Your task to perform on an android device: open app "Roku - Official Remote Control" Image 0: 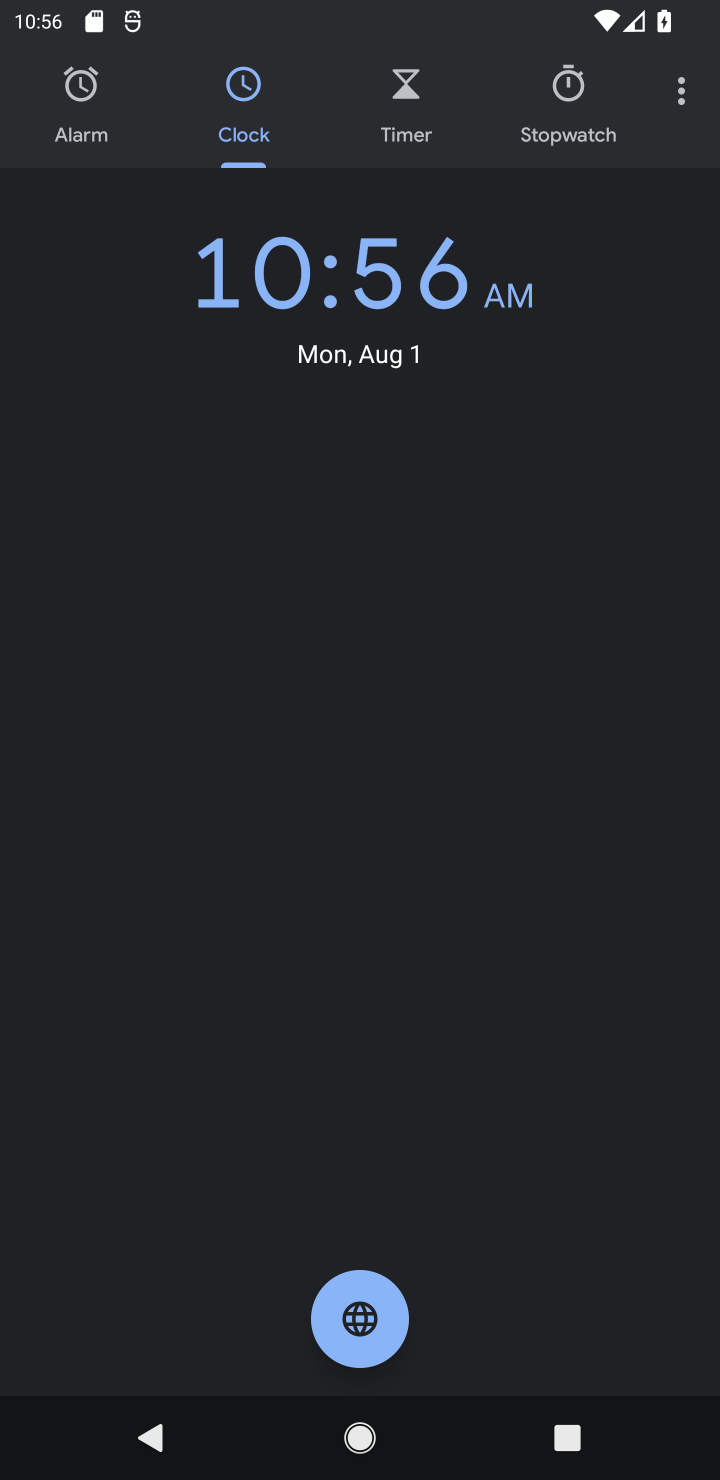
Step 0: press back button
Your task to perform on an android device: open app "Roku - Official Remote Control" Image 1: 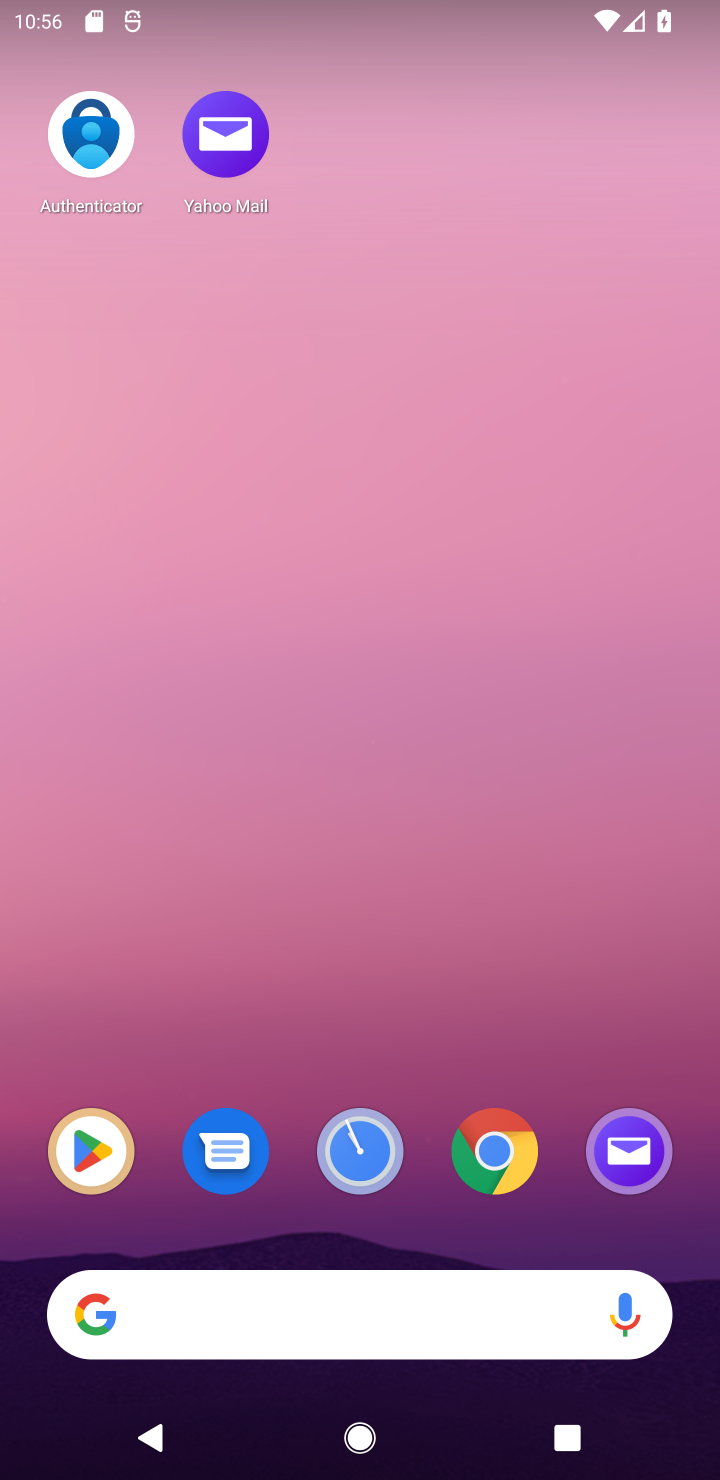
Step 1: drag from (379, 1251) to (384, 155)
Your task to perform on an android device: open app "Roku - Official Remote Control" Image 2: 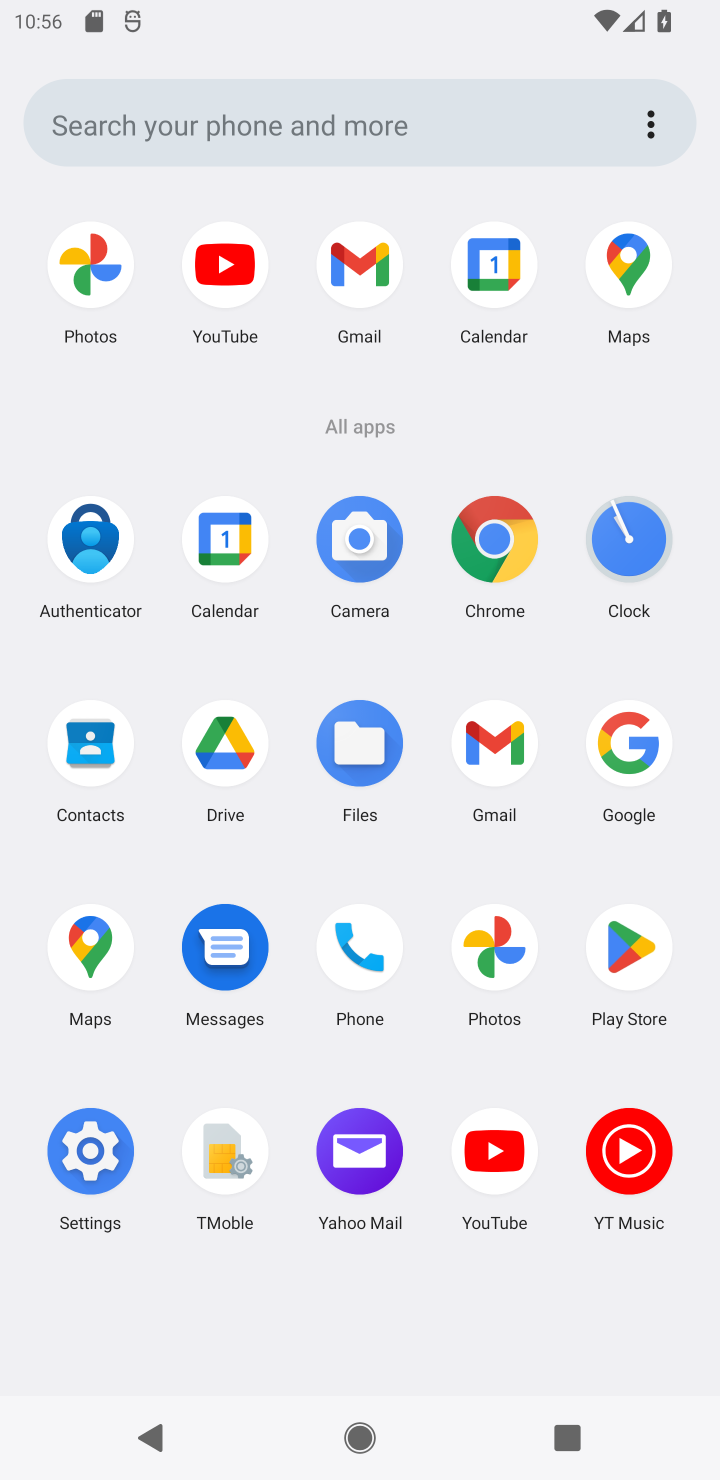
Step 2: click (645, 958)
Your task to perform on an android device: open app "Roku - Official Remote Control" Image 3: 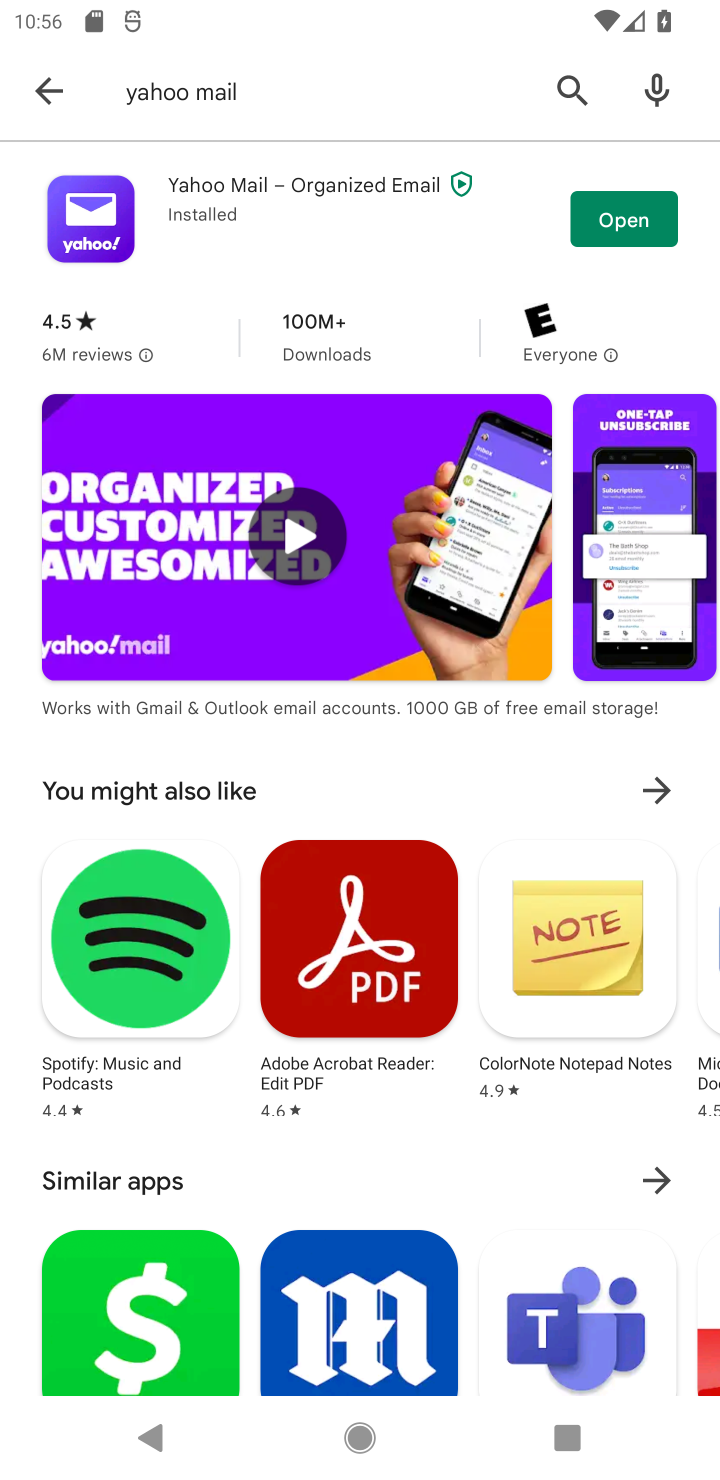
Step 3: click (42, 96)
Your task to perform on an android device: open app "Roku - Official Remote Control" Image 4: 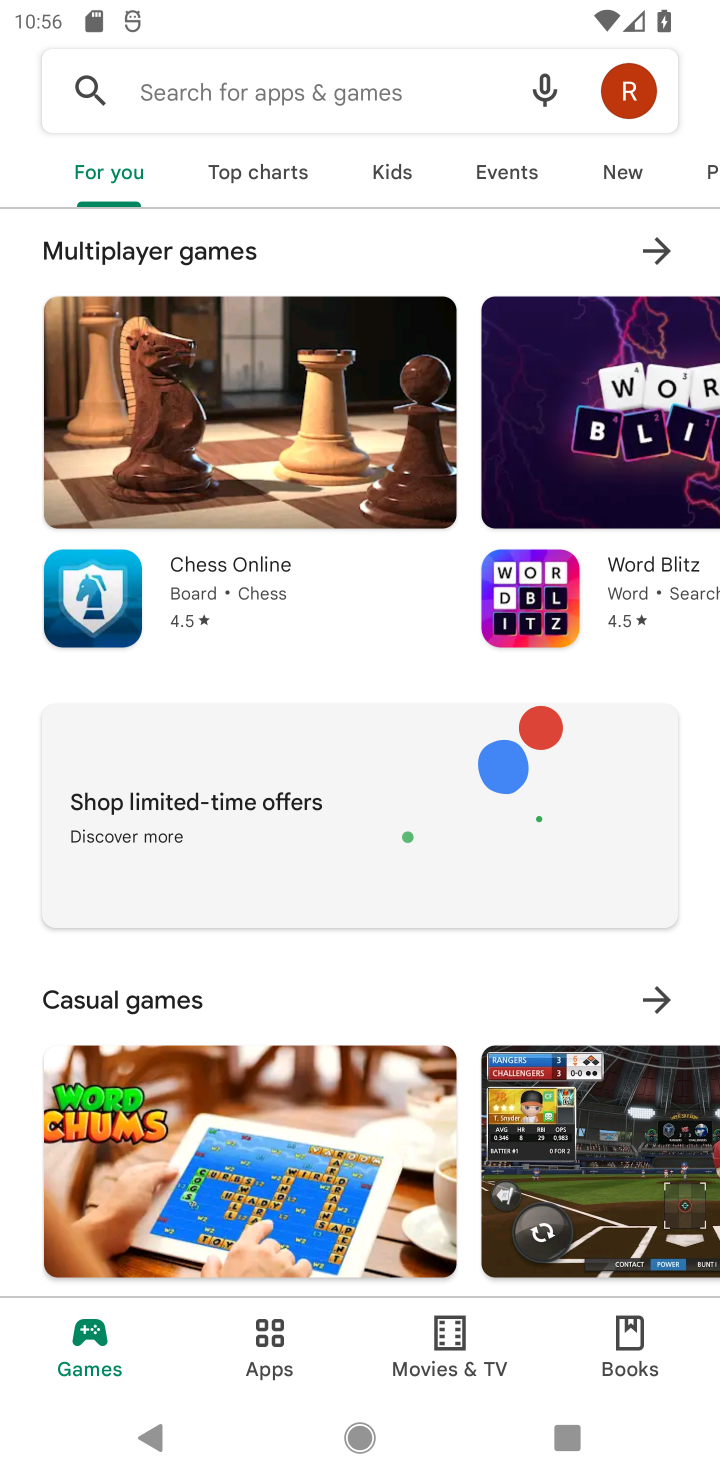
Step 4: click (244, 89)
Your task to perform on an android device: open app "Roku - Official Remote Control" Image 5: 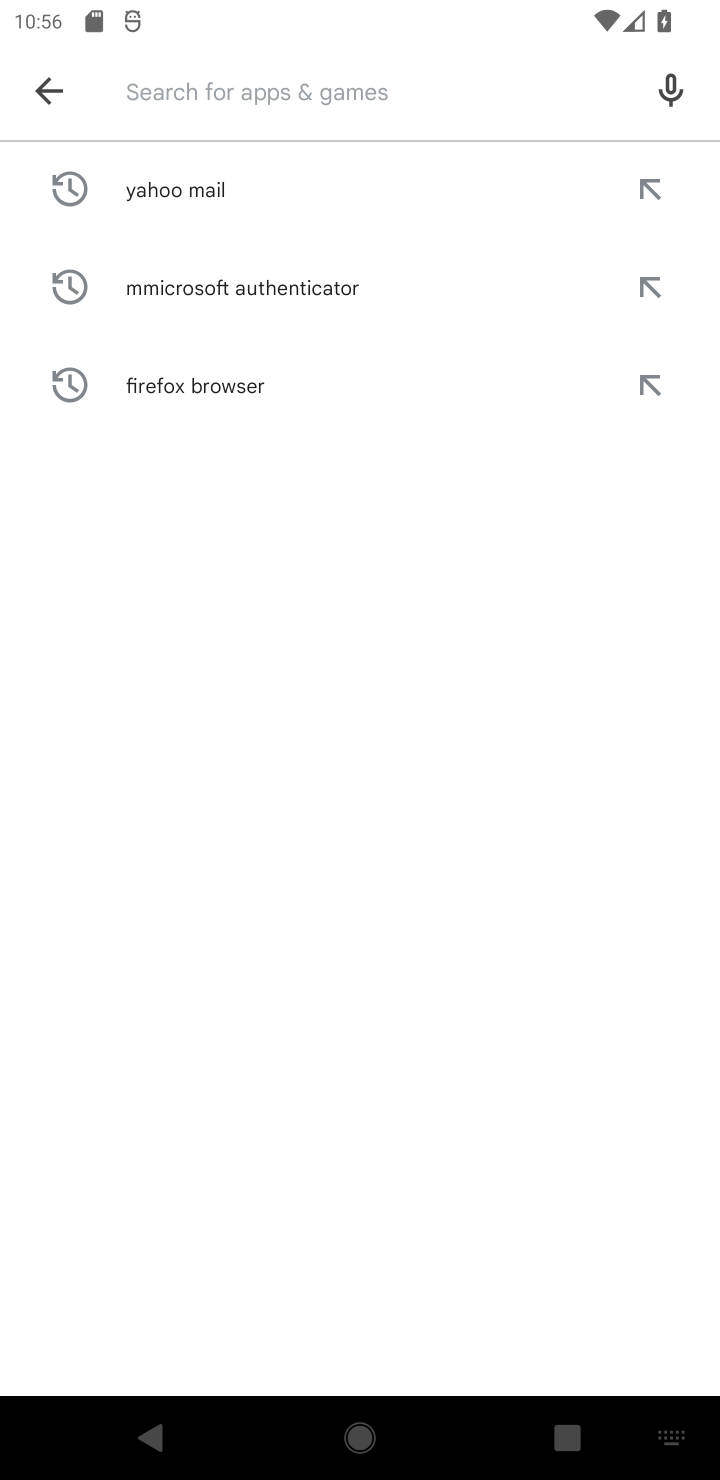
Step 5: type "Roku - Official Remote Control"
Your task to perform on an android device: open app "Roku - Official Remote Control" Image 6: 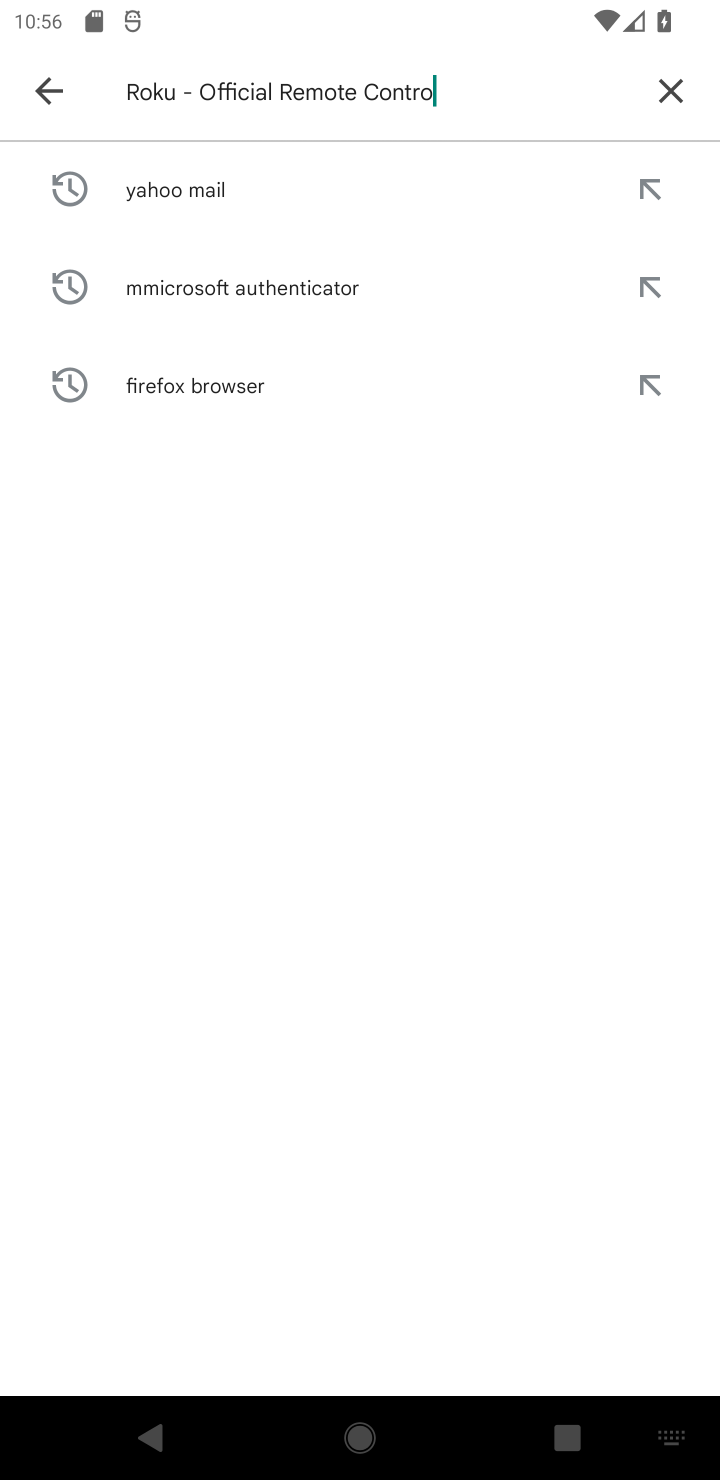
Step 6: type ""
Your task to perform on an android device: open app "Roku - Official Remote Control" Image 7: 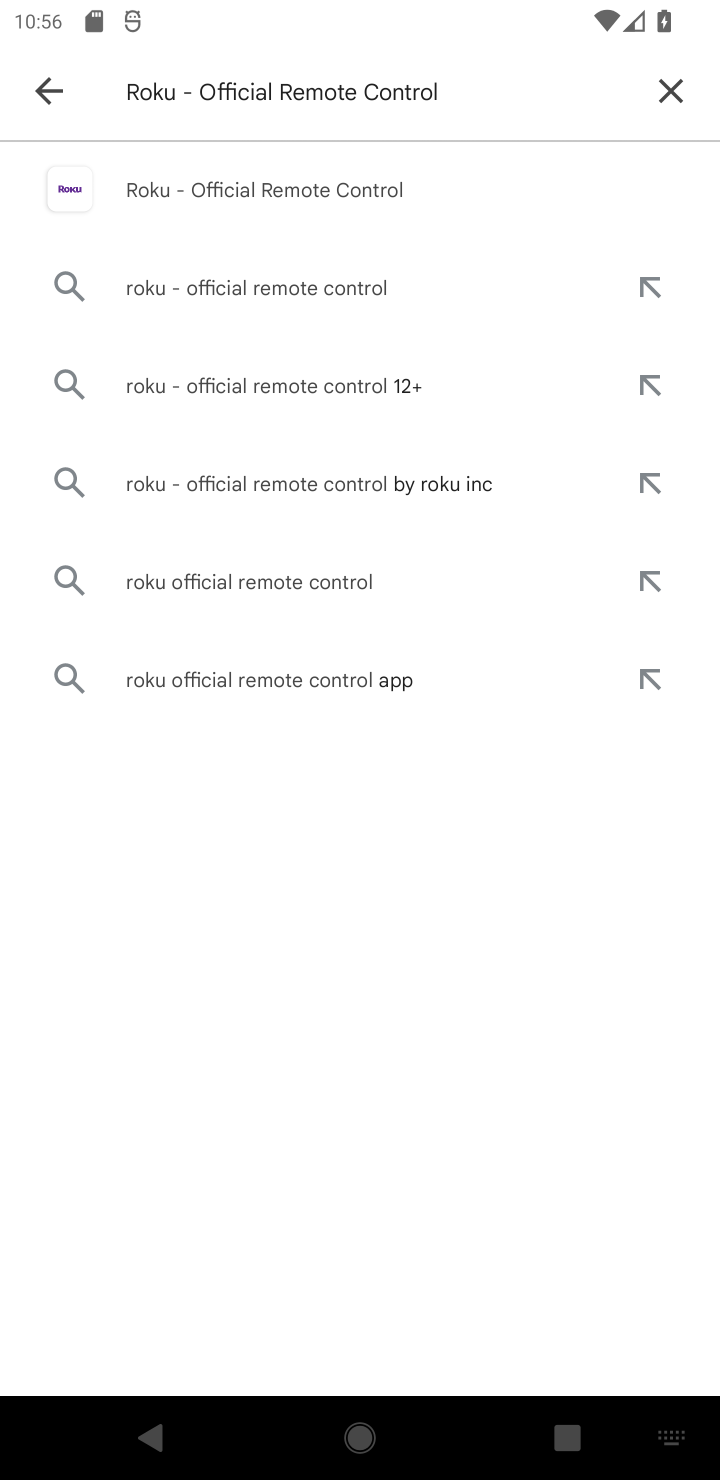
Step 7: click (212, 166)
Your task to perform on an android device: open app "Roku - Official Remote Control" Image 8: 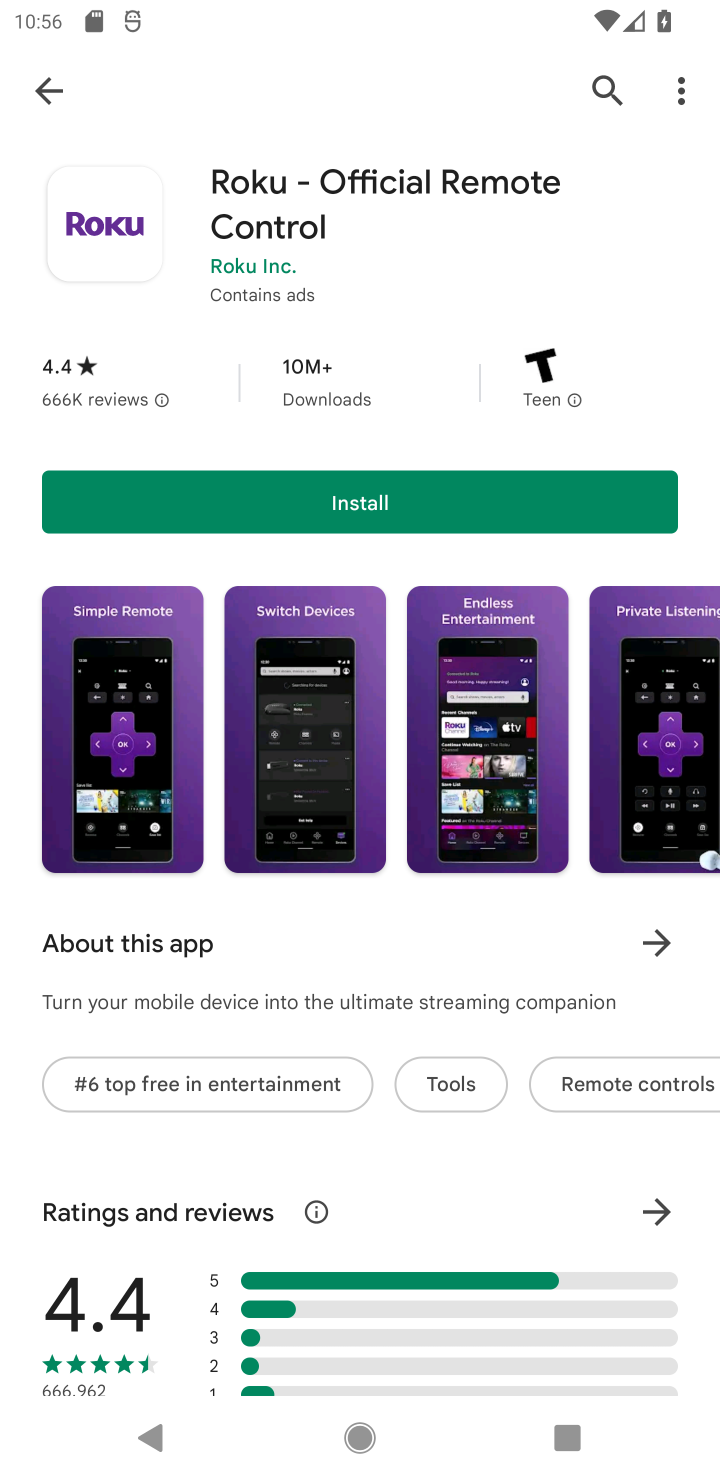
Step 8: task complete